Your task to perform on an android device: open a bookmark in the chrome app Image 0: 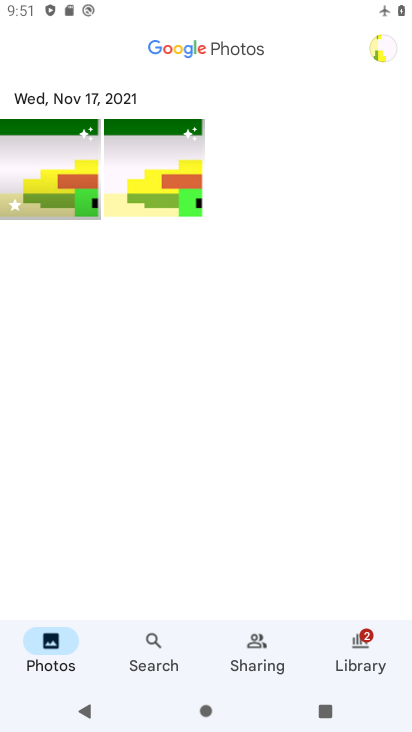
Step 0: press home button
Your task to perform on an android device: open a bookmark in the chrome app Image 1: 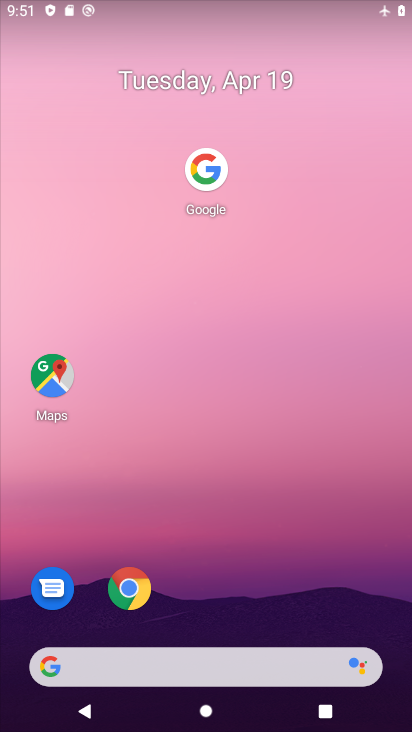
Step 1: click (129, 593)
Your task to perform on an android device: open a bookmark in the chrome app Image 2: 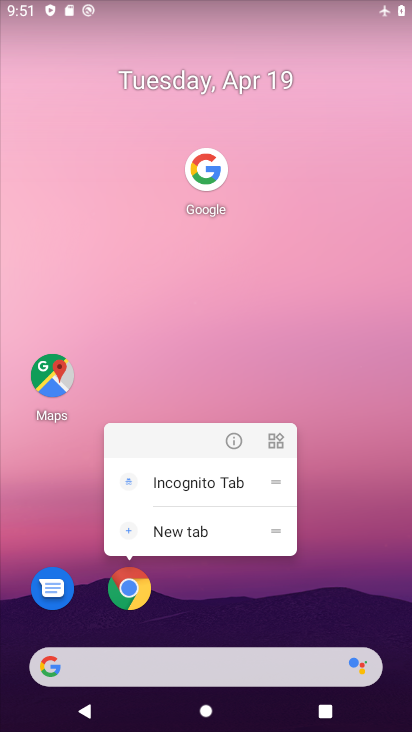
Step 2: click (129, 593)
Your task to perform on an android device: open a bookmark in the chrome app Image 3: 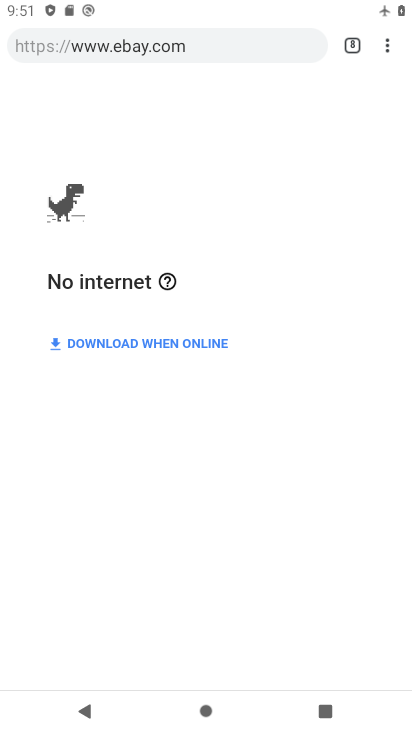
Step 3: click (382, 47)
Your task to perform on an android device: open a bookmark in the chrome app Image 4: 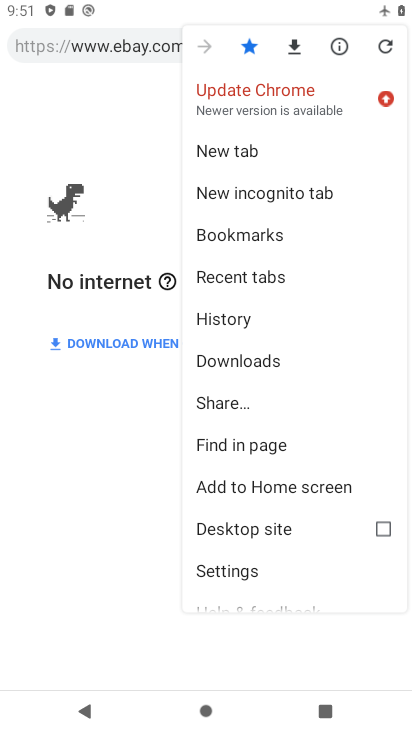
Step 4: click (251, 235)
Your task to perform on an android device: open a bookmark in the chrome app Image 5: 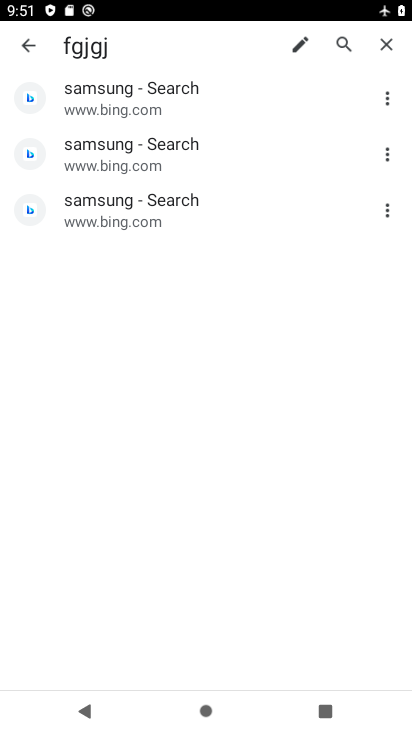
Step 5: task complete